Your task to perform on an android device: turn on data saver in the chrome app Image 0: 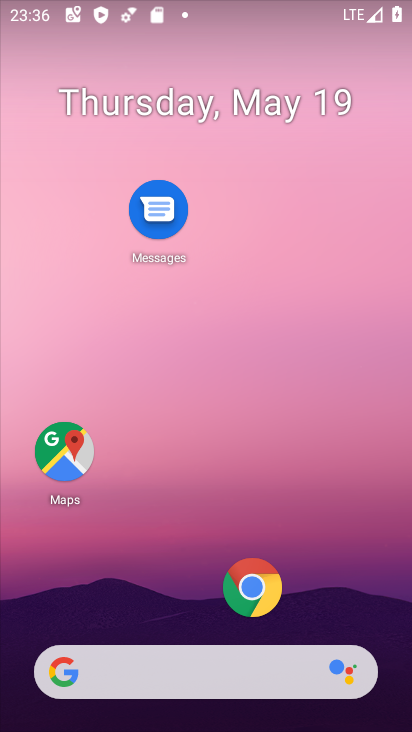
Step 0: click (259, 596)
Your task to perform on an android device: turn on data saver in the chrome app Image 1: 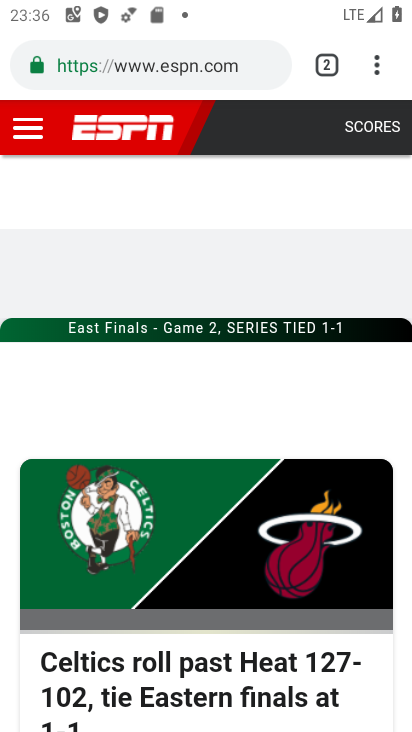
Step 1: click (383, 74)
Your task to perform on an android device: turn on data saver in the chrome app Image 2: 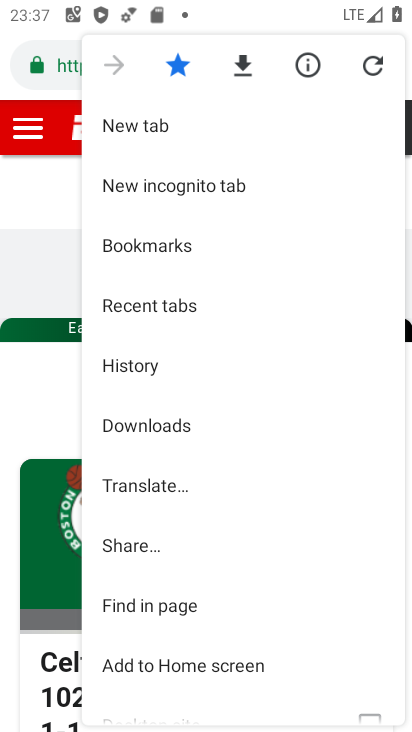
Step 2: drag from (144, 711) to (263, 235)
Your task to perform on an android device: turn on data saver in the chrome app Image 3: 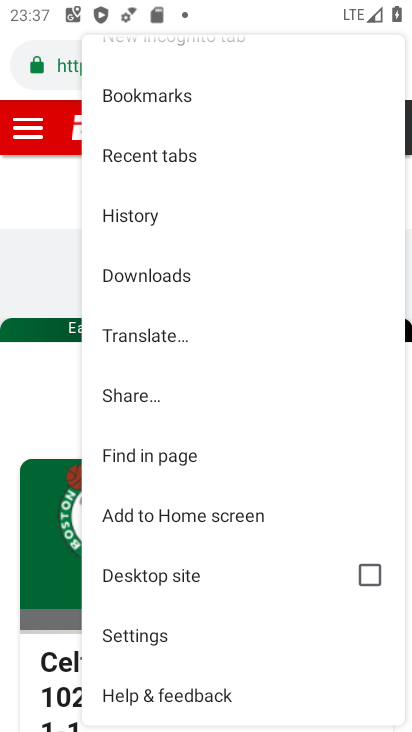
Step 3: drag from (111, 634) to (248, 89)
Your task to perform on an android device: turn on data saver in the chrome app Image 4: 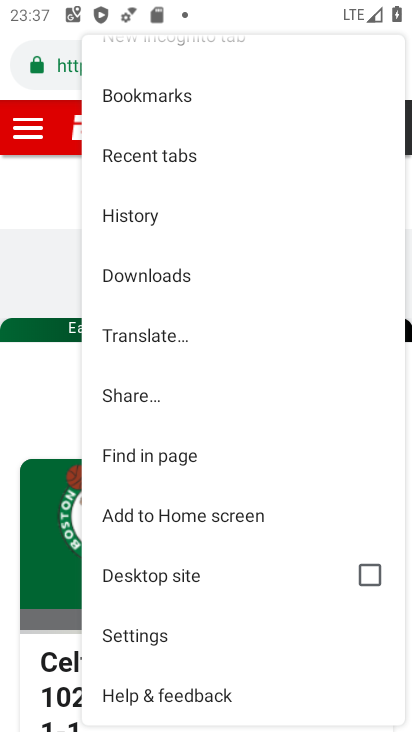
Step 4: click (182, 627)
Your task to perform on an android device: turn on data saver in the chrome app Image 5: 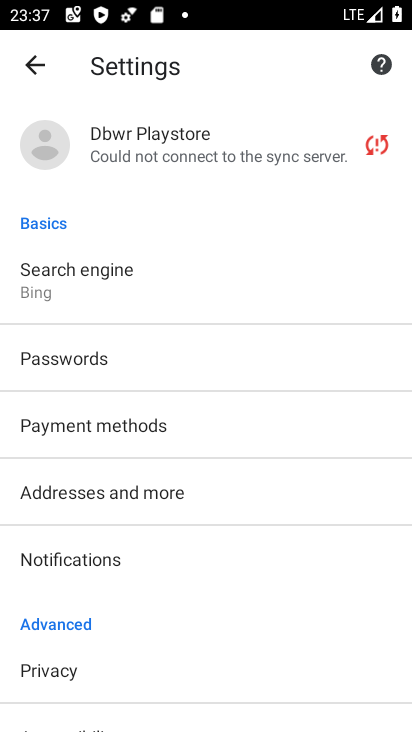
Step 5: drag from (310, 488) to (322, 167)
Your task to perform on an android device: turn on data saver in the chrome app Image 6: 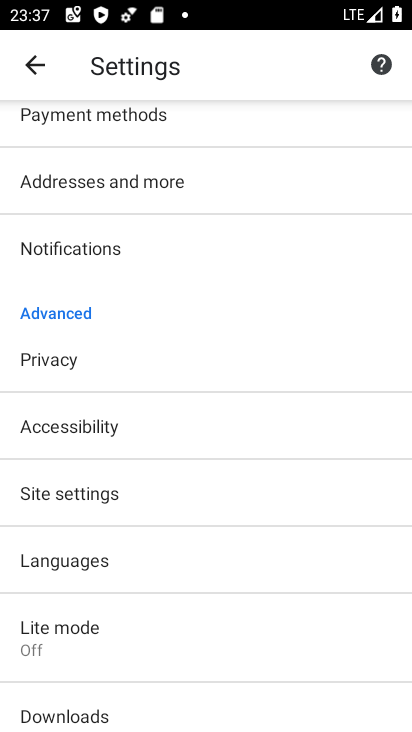
Step 6: click (116, 513)
Your task to perform on an android device: turn on data saver in the chrome app Image 7: 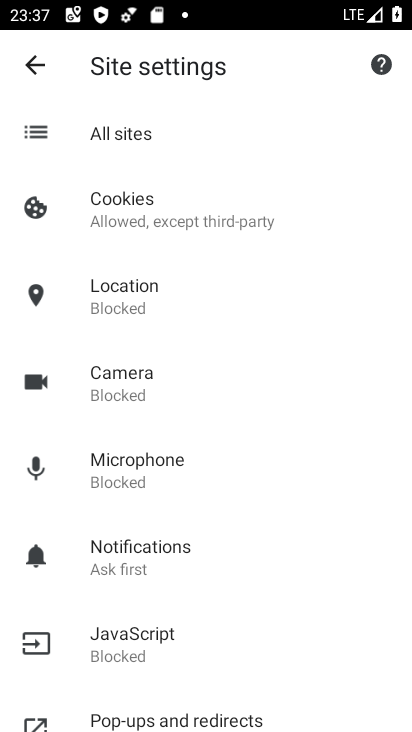
Step 7: drag from (127, 675) to (227, 208)
Your task to perform on an android device: turn on data saver in the chrome app Image 8: 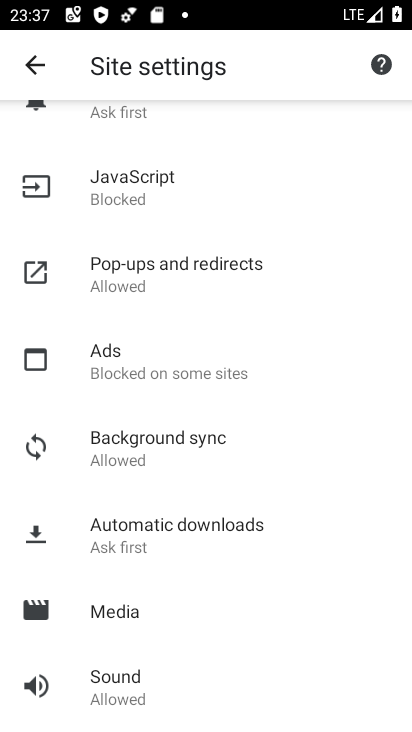
Step 8: drag from (217, 259) to (205, 675)
Your task to perform on an android device: turn on data saver in the chrome app Image 9: 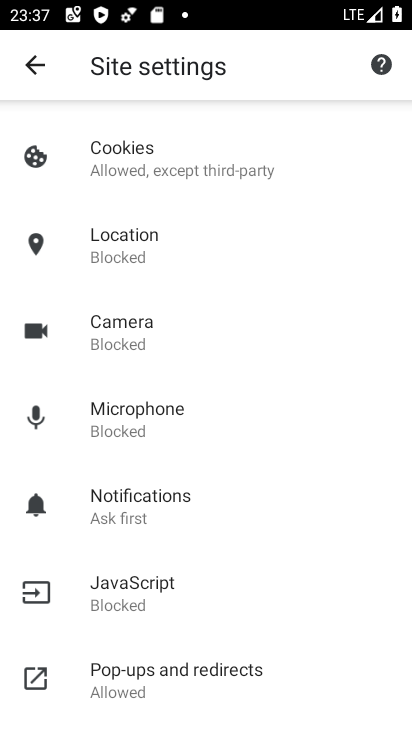
Step 9: drag from (181, 160) to (139, 638)
Your task to perform on an android device: turn on data saver in the chrome app Image 10: 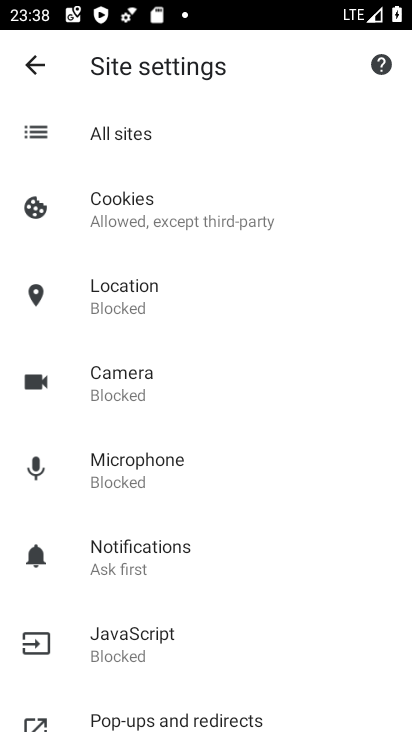
Step 10: click (23, 69)
Your task to perform on an android device: turn on data saver in the chrome app Image 11: 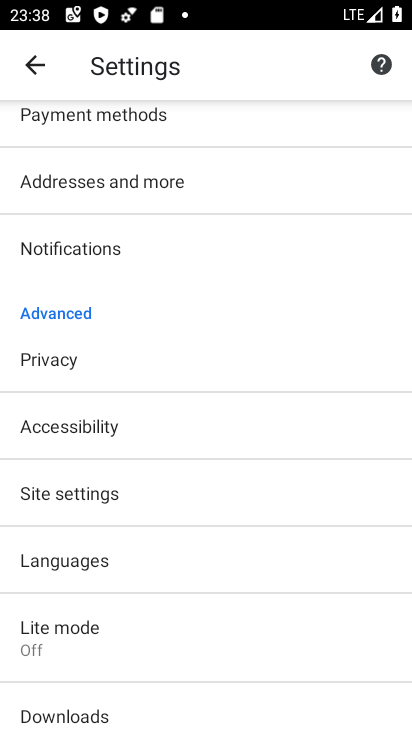
Step 11: click (124, 639)
Your task to perform on an android device: turn on data saver in the chrome app Image 12: 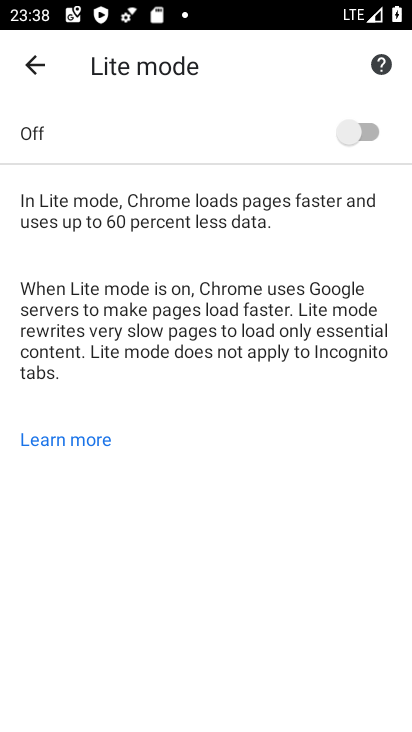
Step 12: click (363, 134)
Your task to perform on an android device: turn on data saver in the chrome app Image 13: 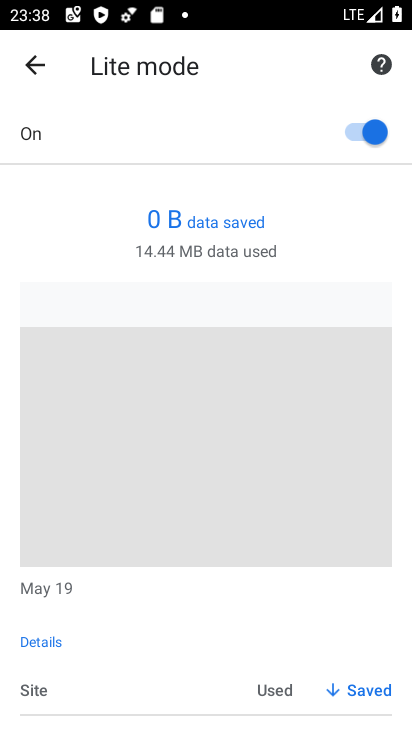
Step 13: task complete